Your task to perform on an android device: move an email to a new category in the gmail app Image 0: 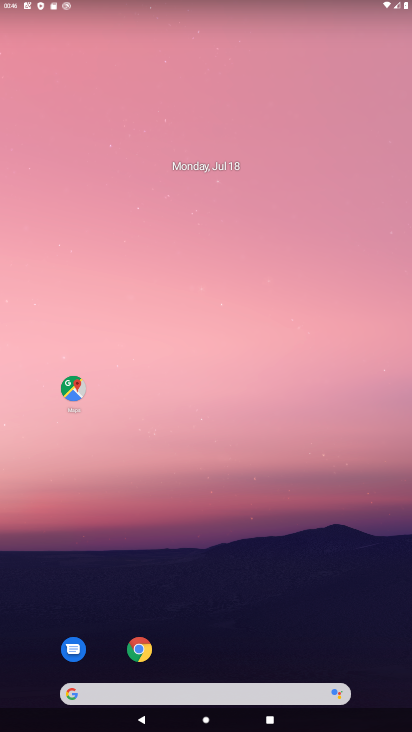
Step 0: drag from (211, 615) to (208, 351)
Your task to perform on an android device: move an email to a new category in the gmail app Image 1: 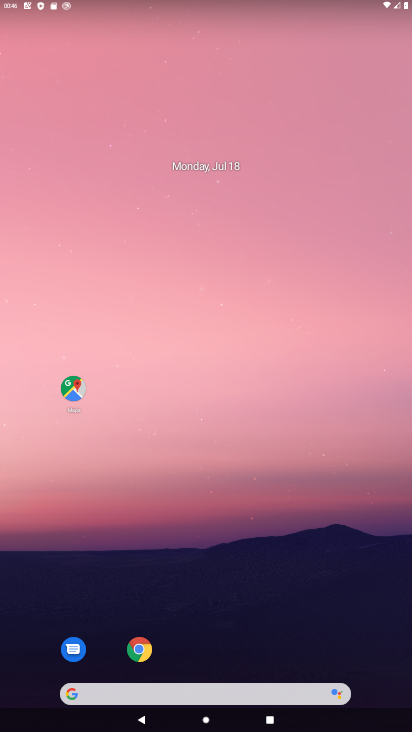
Step 1: drag from (173, 569) to (145, 80)
Your task to perform on an android device: move an email to a new category in the gmail app Image 2: 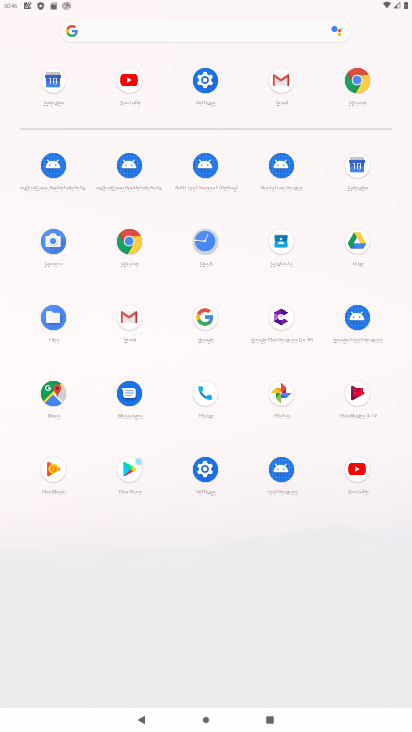
Step 2: click (273, 85)
Your task to perform on an android device: move an email to a new category in the gmail app Image 3: 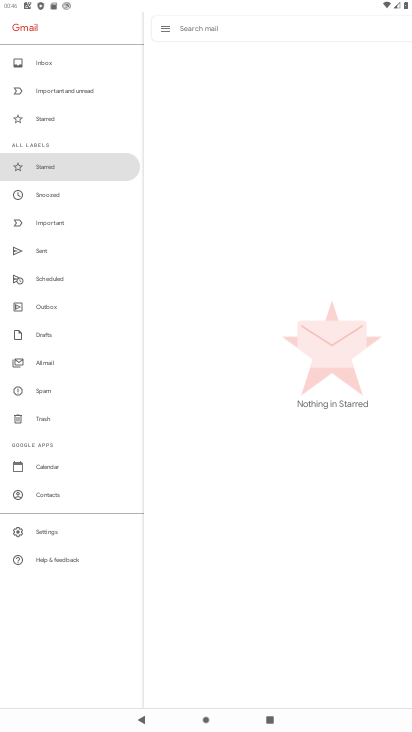
Step 3: click (53, 359)
Your task to perform on an android device: move an email to a new category in the gmail app Image 4: 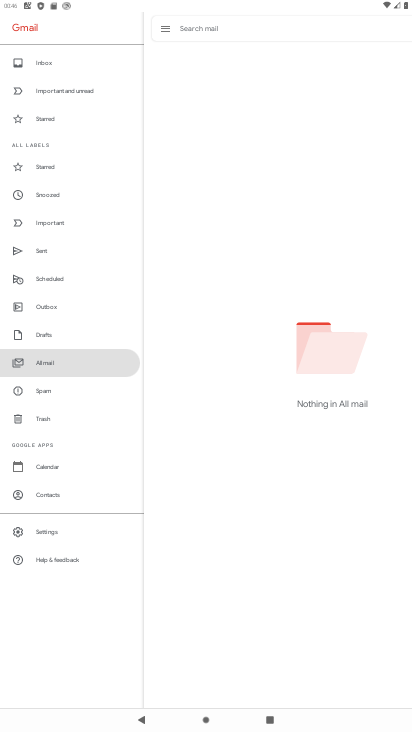
Step 4: task complete